Your task to perform on an android device: Go to Yahoo.com Image 0: 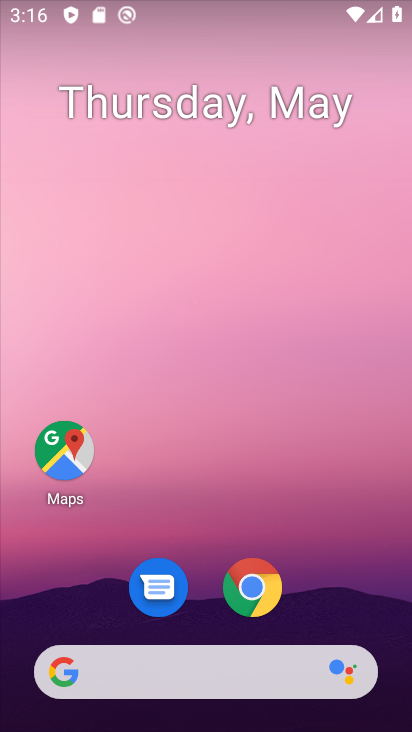
Step 0: click (248, 594)
Your task to perform on an android device: Go to Yahoo.com Image 1: 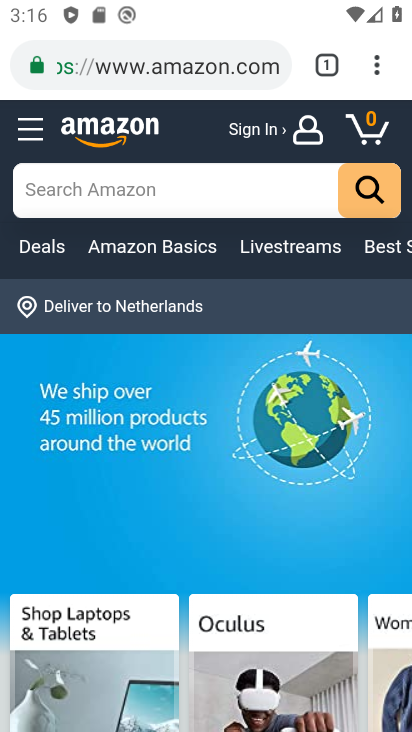
Step 1: click (377, 71)
Your task to perform on an android device: Go to Yahoo.com Image 2: 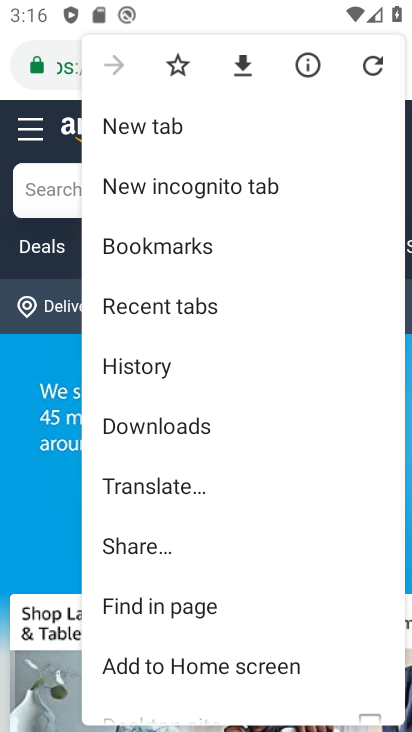
Step 2: click (160, 122)
Your task to perform on an android device: Go to Yahoo.com Image 3: 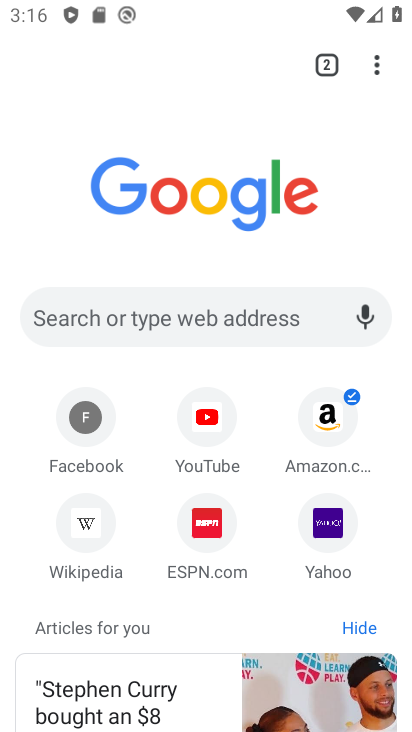
Step 3: click (322, 513)
Your task to perform on an android device: Go to Yahoo.com Image 4: 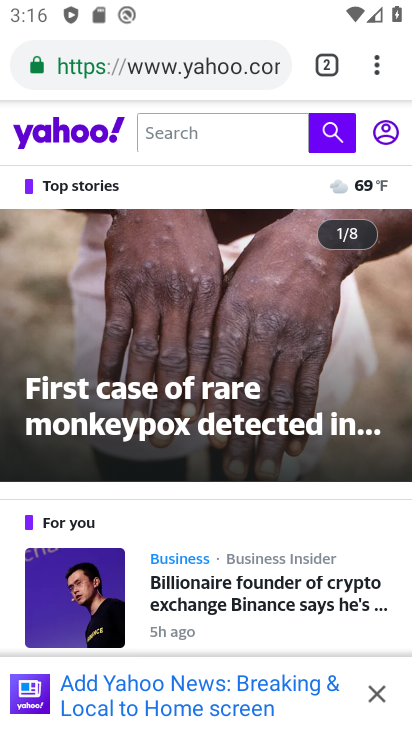
Step 4: task complete